Your task to perform on an android device: turn off location history Image 0: 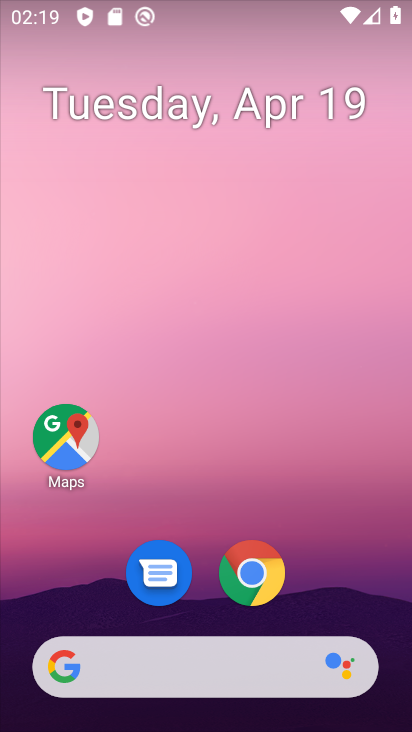
Step 0: drag from (372, 593) to (395, 80)
Your task to perform on an android device: turn off location history Image 1: 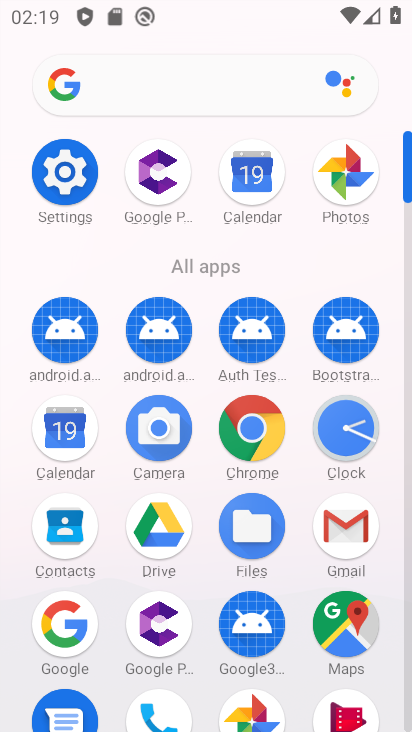
Step 1: click (344, 622)
Your task to perform on an android device: turn off location history Image 2: 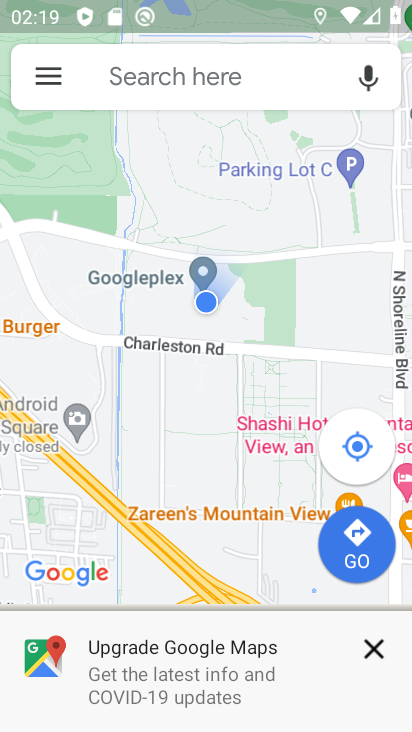
Step 2: click (36, 82)
Your task to perform on an android device: turn off location history Image 3: 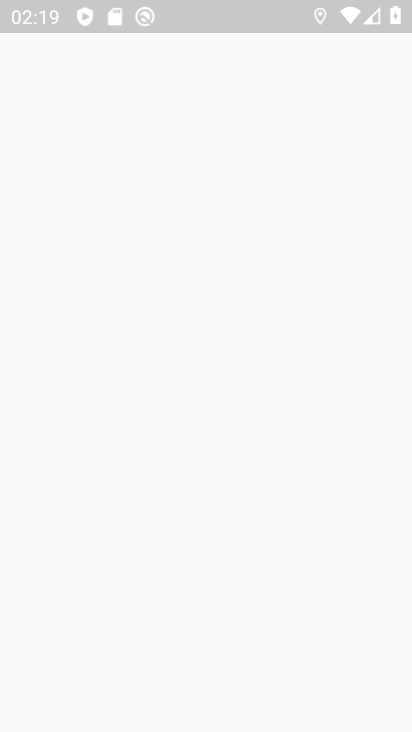
Step 3: click (89, 347)
Your task to perform on an android device: turn off location history Image 4: 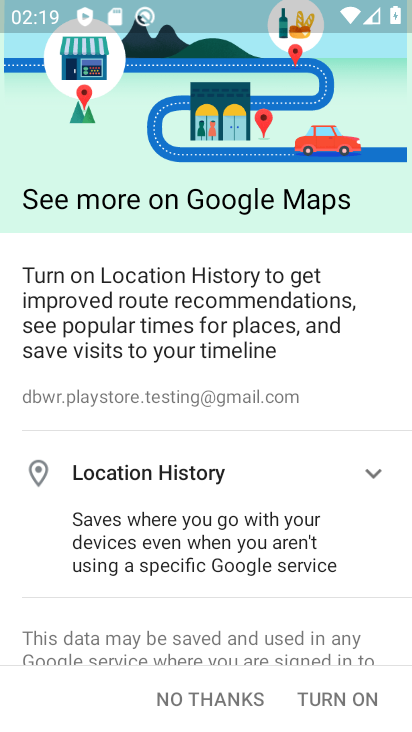
Step 4: click (218, 695)
Your task to perform on an android device: turn off location history Image 5: 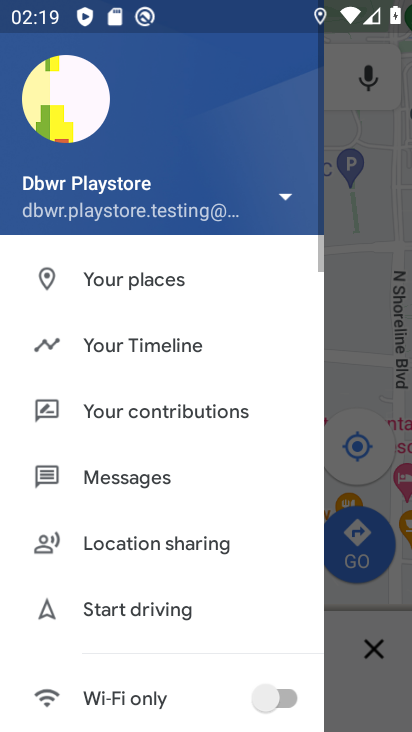
Step 5: click (130, 344)
Your task to perform on an android device: turn off location history Image 6: 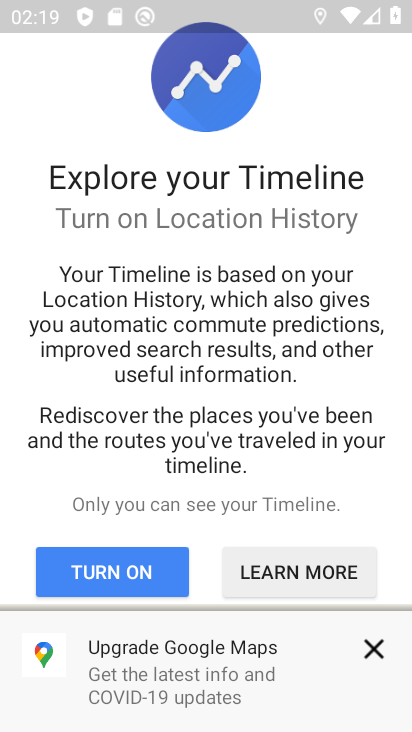
Step 6: drag from (377, 525) to (390, 318)
Your task to perform on an android device: turn off location history Image 7: 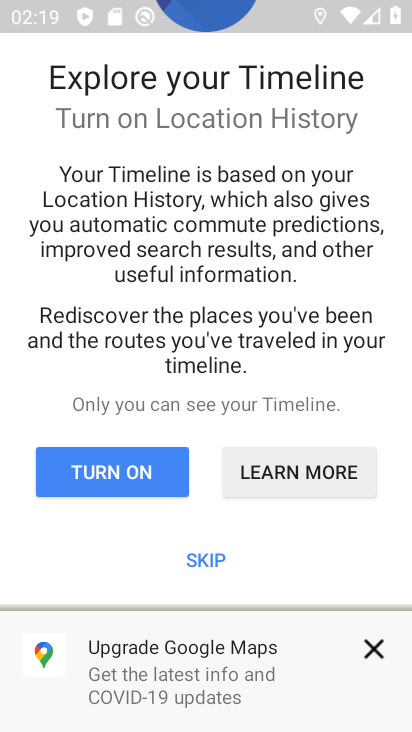
Step 7: click (211, 555)
Your task to perform on an android device: turn off location history Image 8: 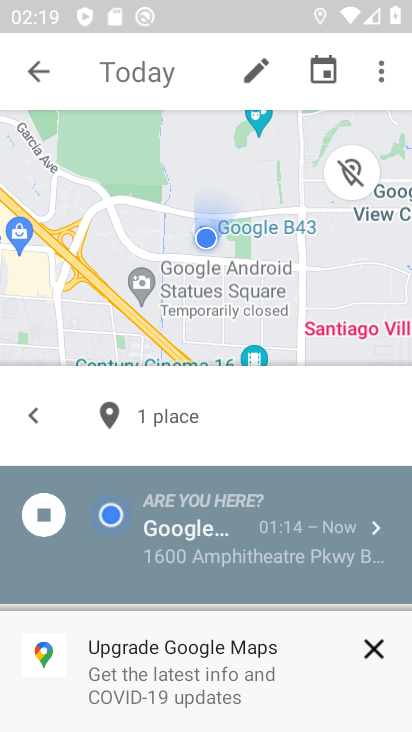
Step 8: click (385, 75)
Your task to perform on an android device: turn off location history Image 9: 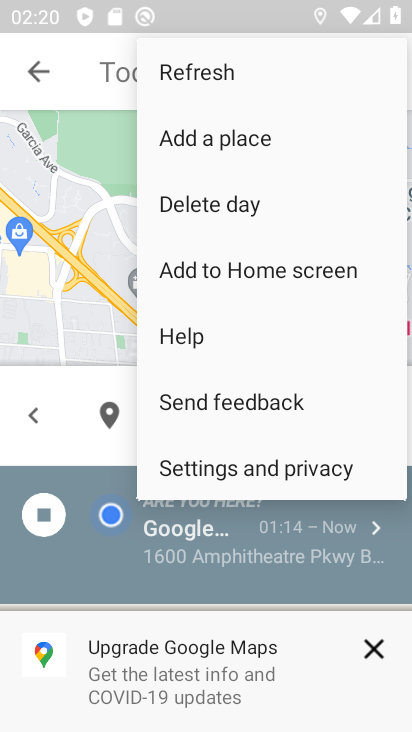
Step 9: click (212, 474)
Your task to perform on an android device: turn off location history Image 10: 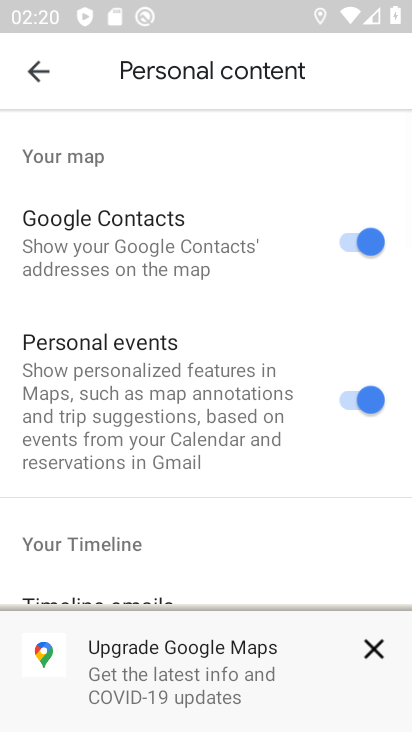
Step 10: drag from (238, 514) to (230, 105)
Your task to perform on an android device: turn off location history Image 11: 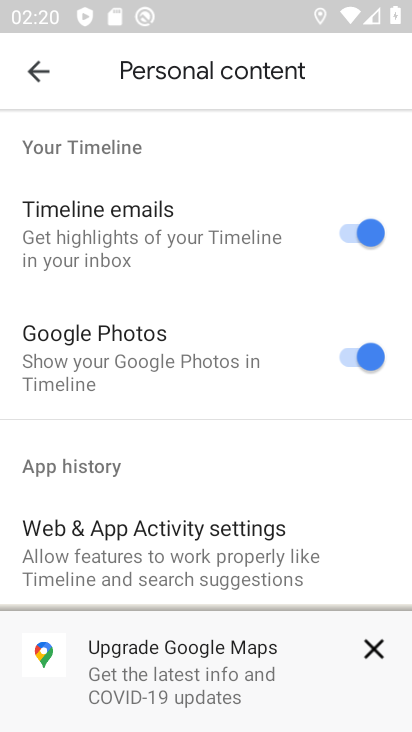
Step 11: drag from (201, 441) to (191, 140)
Your task to perform on an android device: turn off location history Image 12: 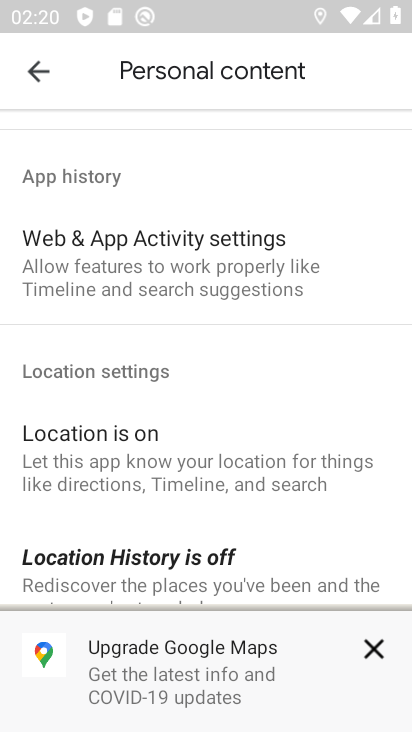
Step 12: drag from (176, 482) to (186, 223)
Your task to perform on an android device: turn off location history Image 13: 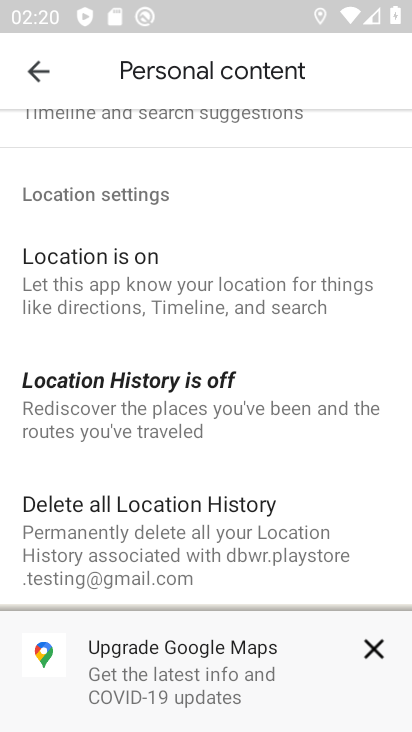
Step 13: click (122, 419)
Your task to perform on an android device: turn off location history Image 14: 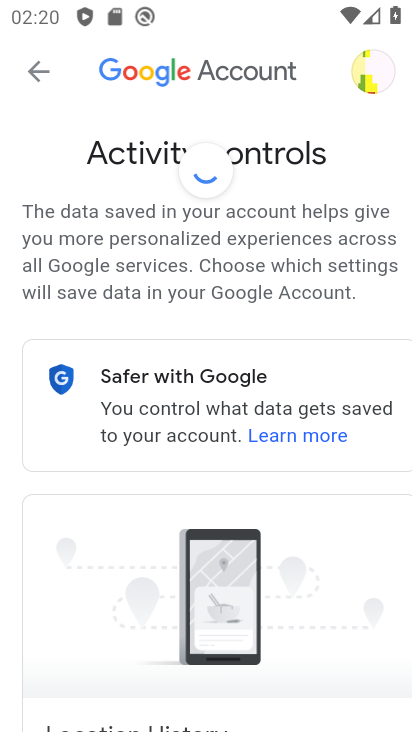
Step 14: task complete